Your task to perform on an android device: turn on showing notifications on the lock screen Image 0: 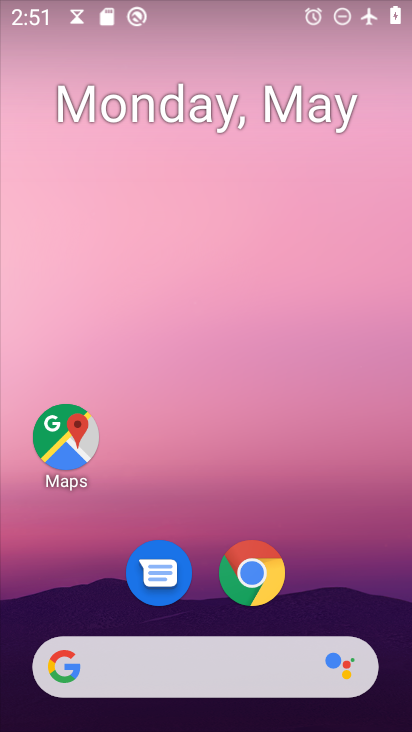
Step 0: drag from (182, 730) to (198, 88)
Your task to perform on an android device: turn on showing notifications on the lock screen Image 1: 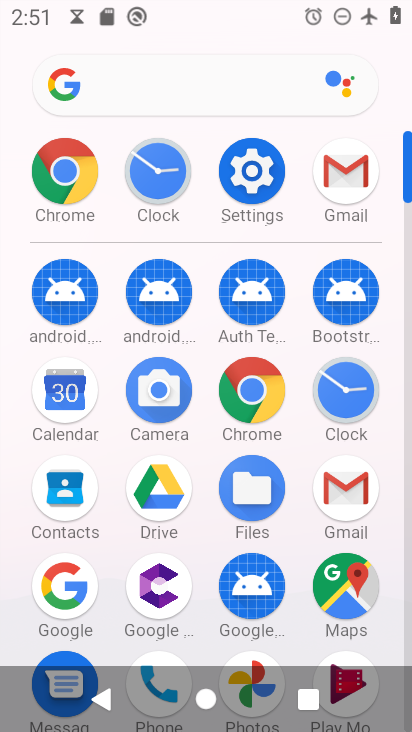
Step 1: click (253, 168)
Your task to perform on an android device: turn on showing notifications on the lock screen Image 2: 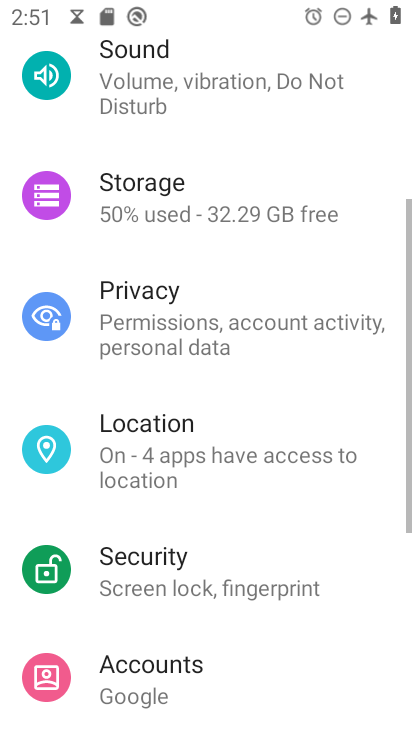
Step 2: drag from (214, 186) to (156, 686)
Your task to perform on an android device: turn on showing notifications on the lock screen Image 3: 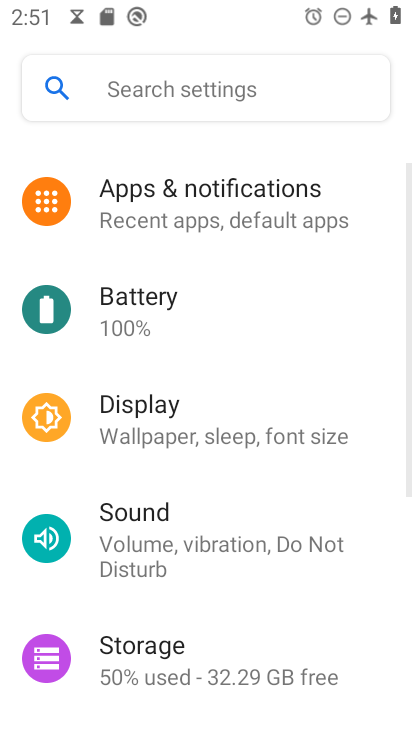
Step 3: drag from (196, 288) to (163, 602)
Your task to perform on an android device: turn on showing notifications on the lock screen Image 4: 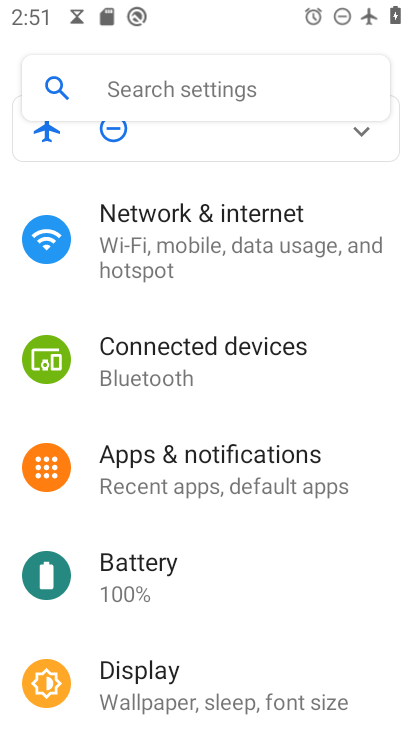
Step 4: click (180, 459)
Your task to perform on an android device: turn on showing notifications on the lock screen Image 5: 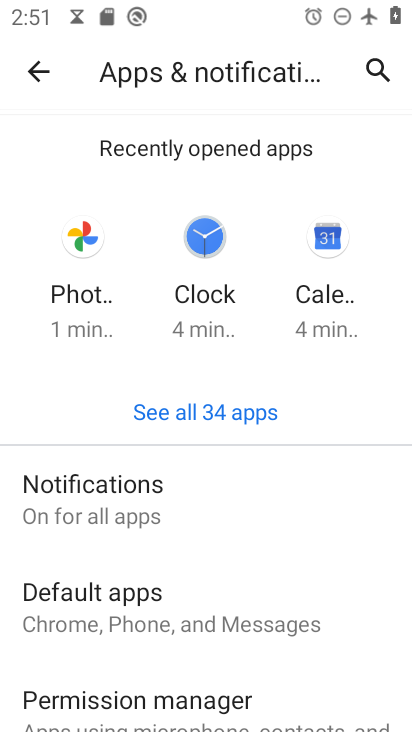
Step 5: click (110, 501)
Your task to perform on an android device: turn on showing notifications on the lock screen Image 6: 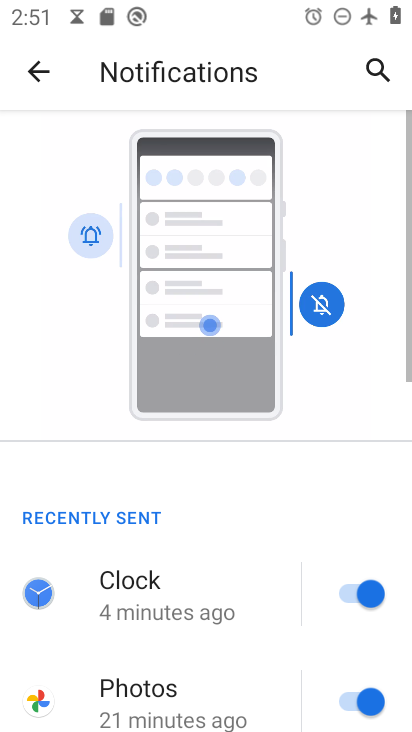
Step 6: drag from (219, 650) to (228, 127)
Your task to perform on an android device: turn on showing notifications on the lock screen Image 7: 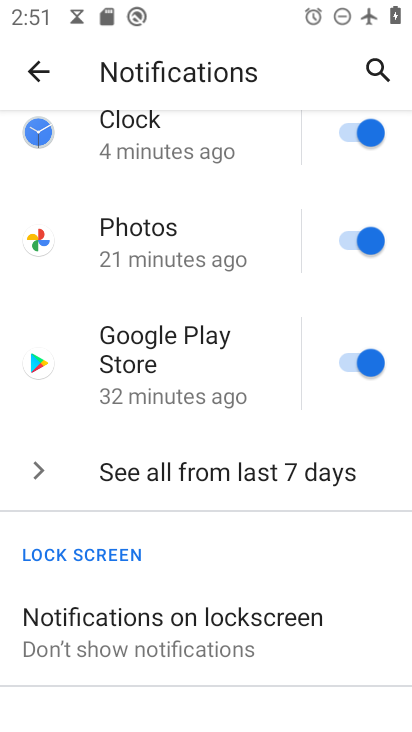
Step 7: click (241, 621)
Your task to perform on an android device: turn on showing notifications on the lock screen Image 8: 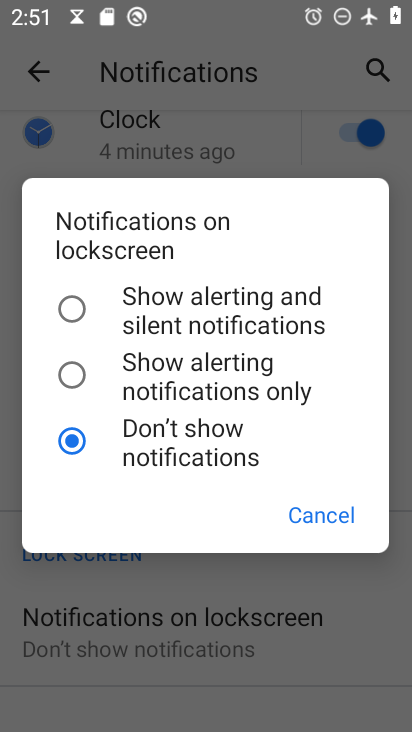
Step 8: click (70, 307)
Your task to perform on an android device: turn on showing notifications on the lock screen Image 9: 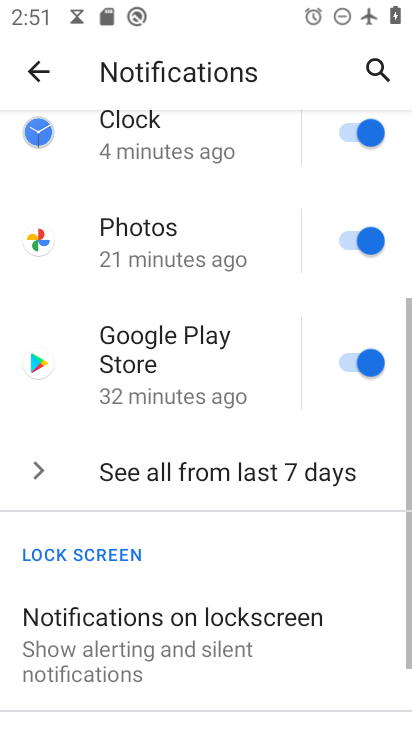
Step 9: task complete